Your task to perform on an android device: Clear the shopping cart on newegg. Add "dell xps" to the cart on newegg, then select checkout. Image 0: 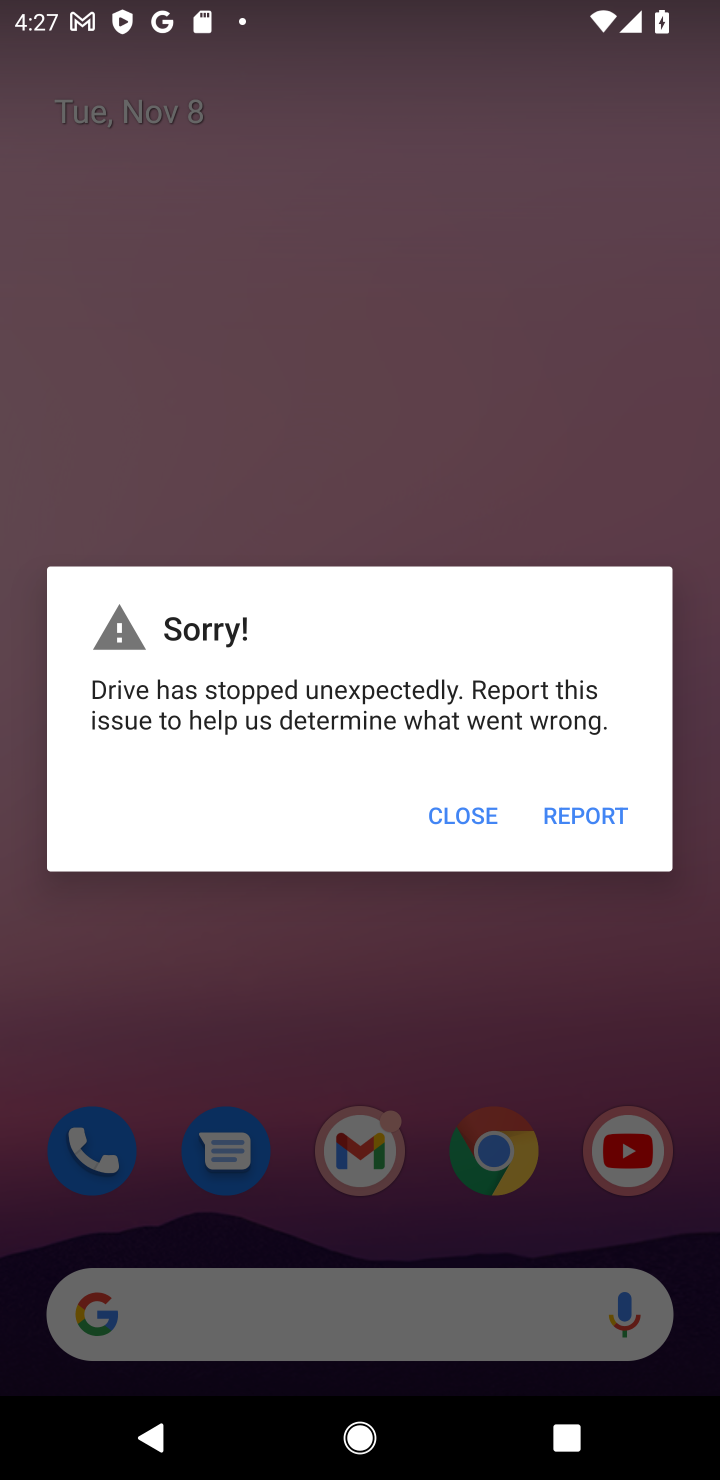
Step 0: press home button
Your task to perform on an android device: Clear the shopping cart on newegg. Add "dell xps" to the cart on newegg, then select checkout. Image 1: 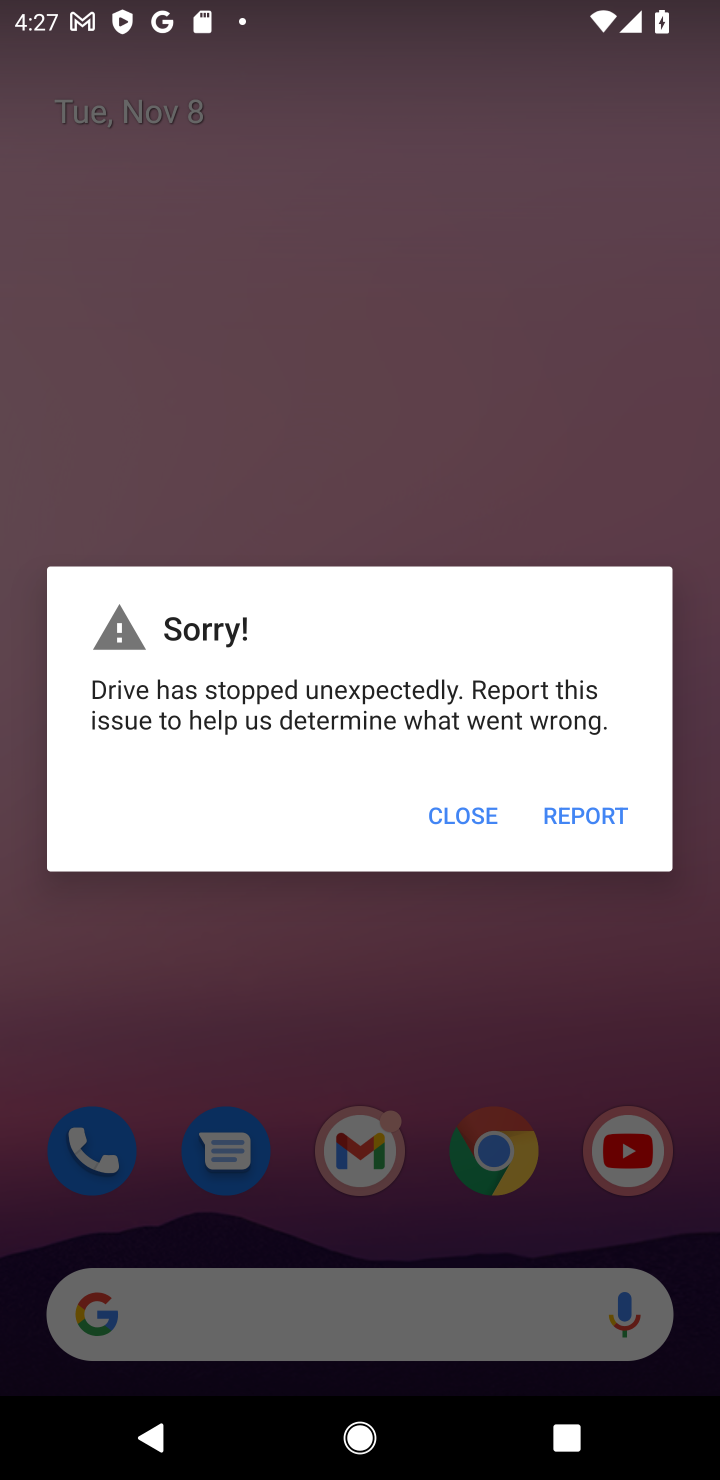
Step 1: press home button
Your task to perform on an android device: Clear the shopping cart on newegg. Add "dell xps" to the cart on newegg, then select checkout. Image 2: 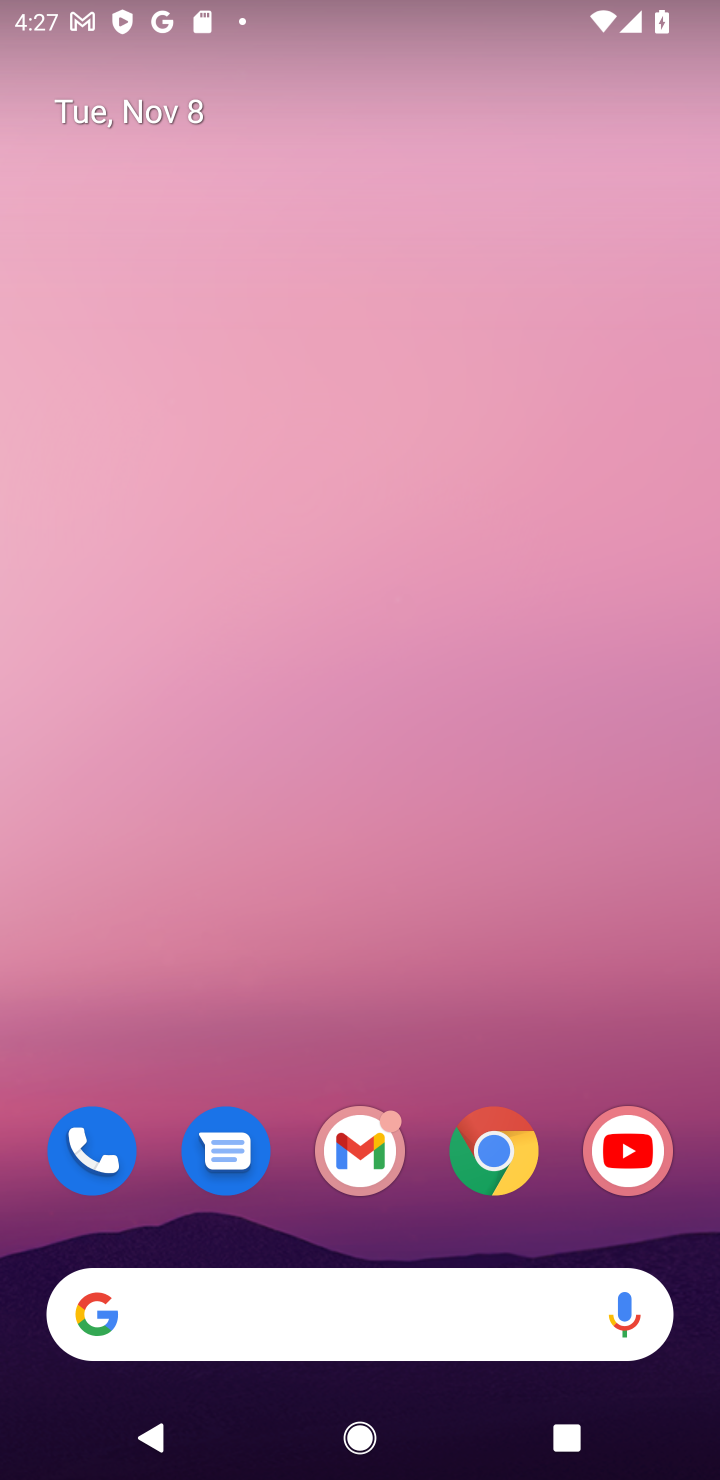
Step 2: drag from (461, 841) to (431, 160)
Your task to perform on an android device: Clear the shopping cart on newegg. Add "dell xps" to the cart on newegg, then select checkout. Image 3: 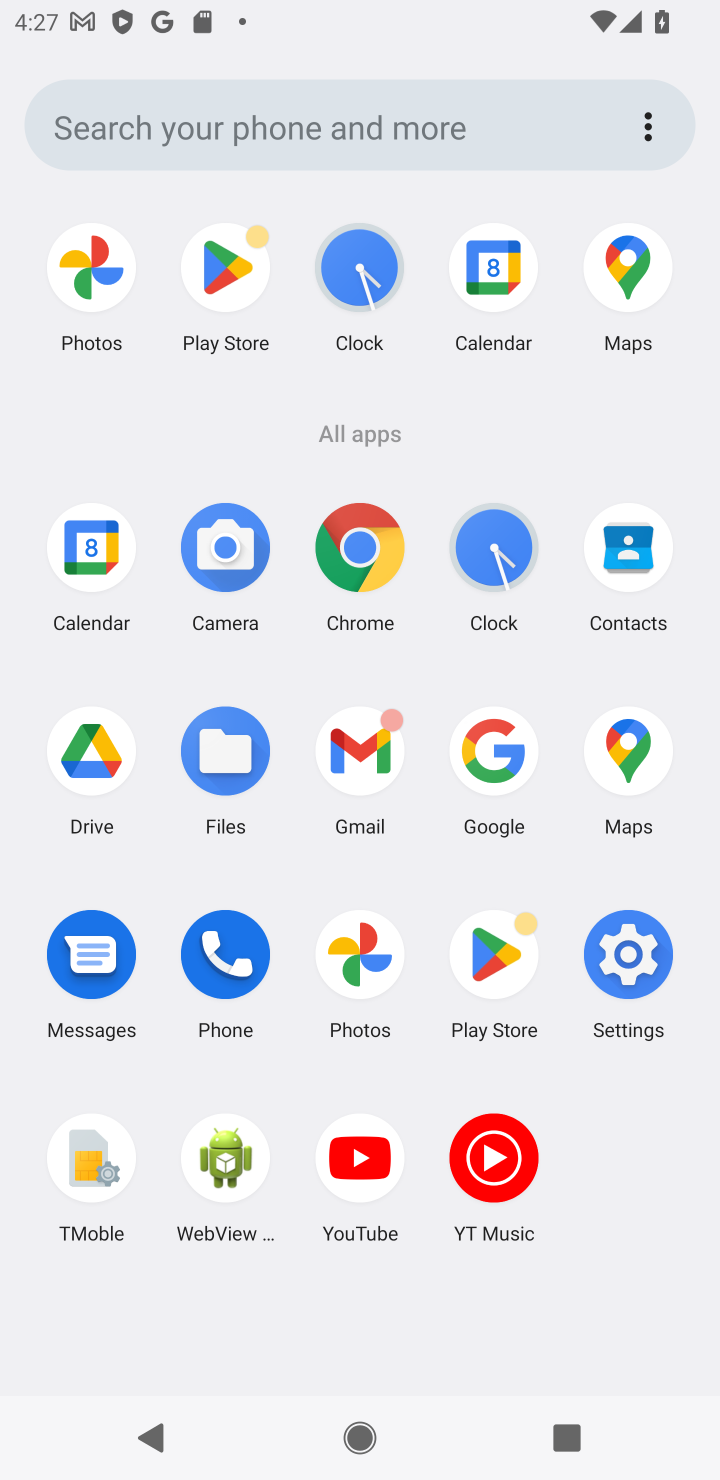
Step 3: click (367, 558)
Your task to perform on an android device: Clear the shopping cart on newegg. Add "dell xps" to the cart on newegg, then select checkout. Image 4: 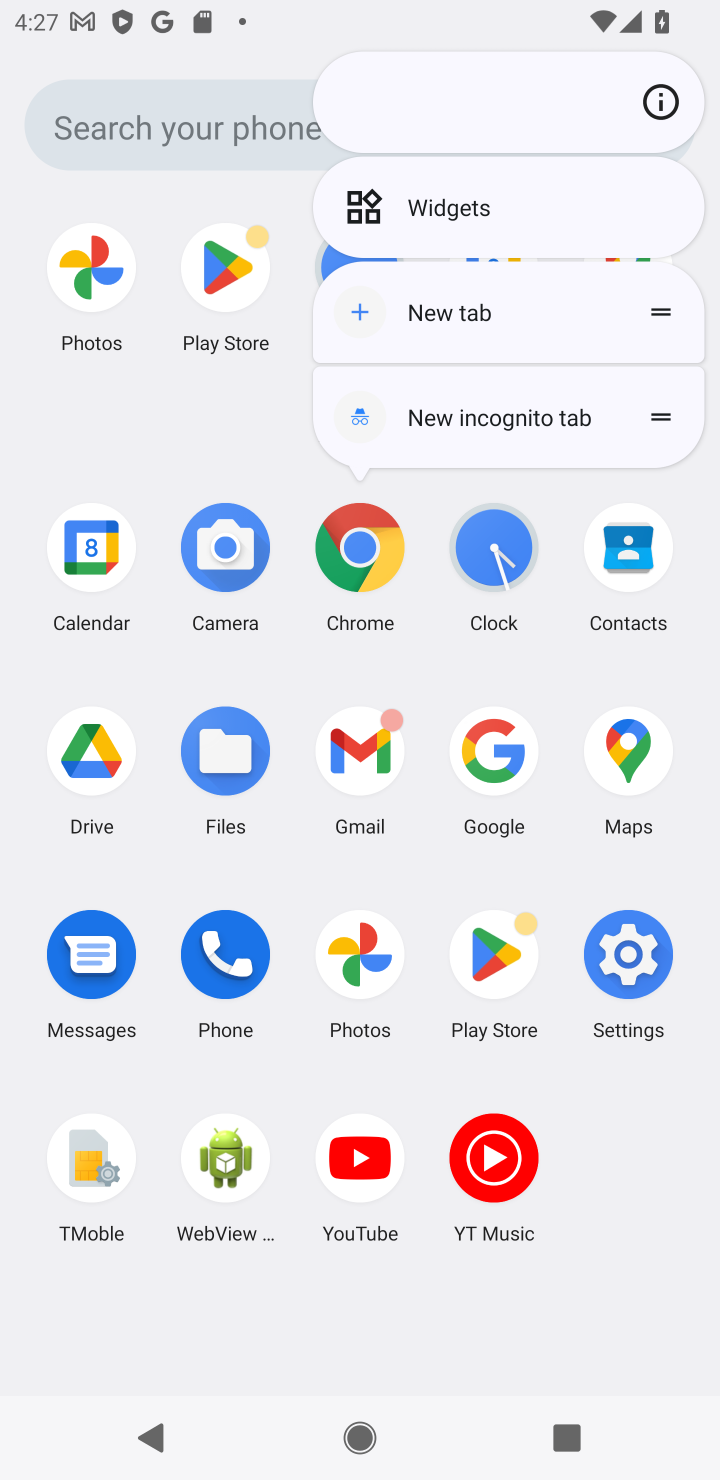
Step 4: click (348, 550)
Your task to perform on an android device: Clear the shopping cart on newegg. Add "dell xps" to the cart on newegg, then select checkout. Image 5: 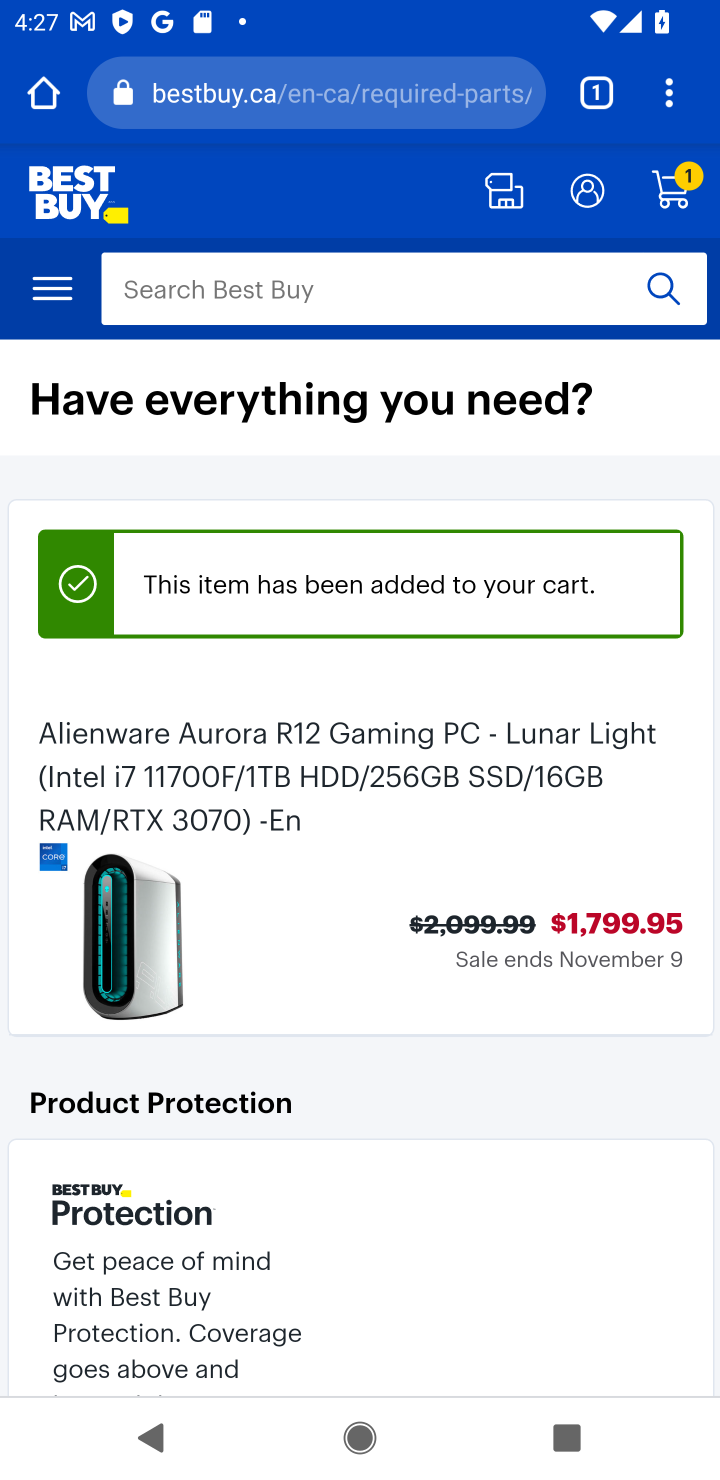
Step 5: click (361, 185)
Your task to perform on an android device: Clear the shopping cart on newegg. Add "dell xps" to the cart on newegg, then select checkout. Image 6: 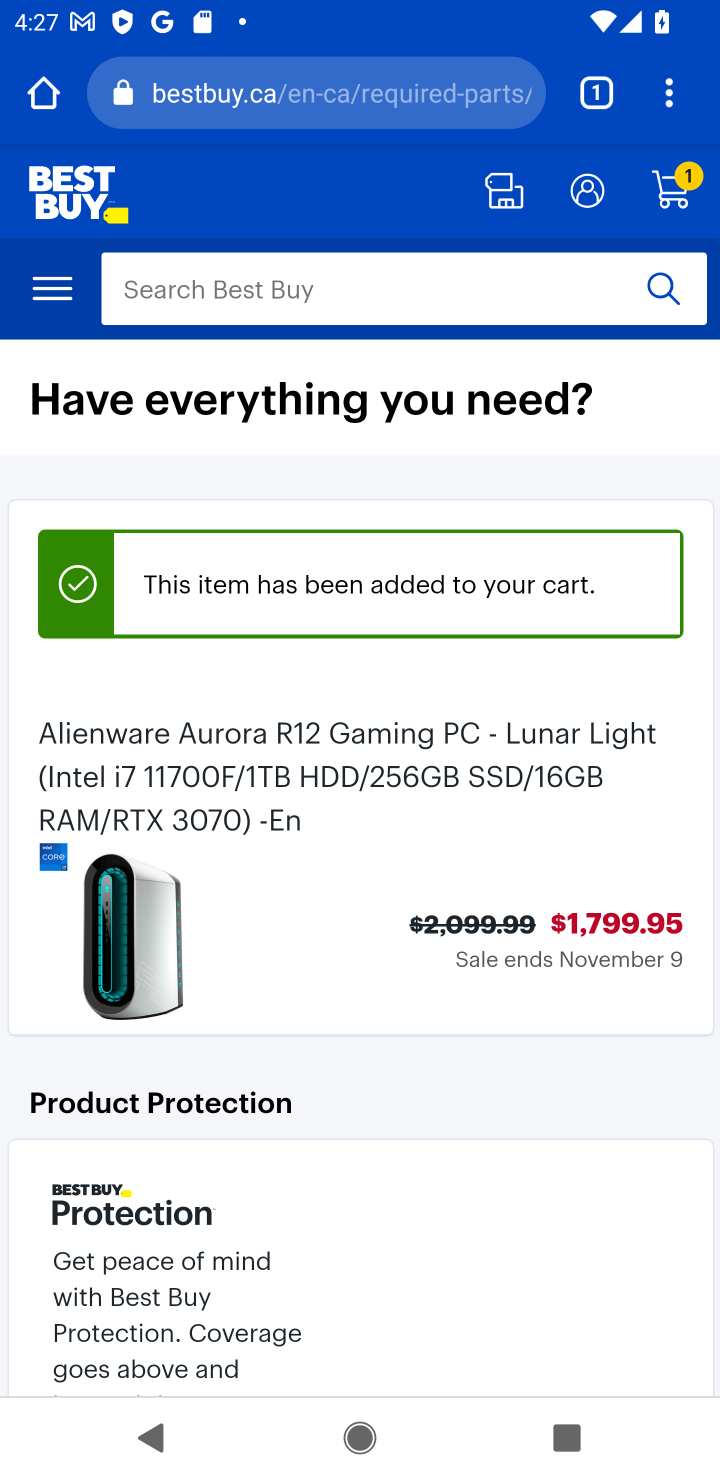
Step 6: click (379, 94)
Your task to perform on an android device: Clear the shopping cart on newegg. Add "dell xps" to the cart on newegg, then select checkout. Image 7: 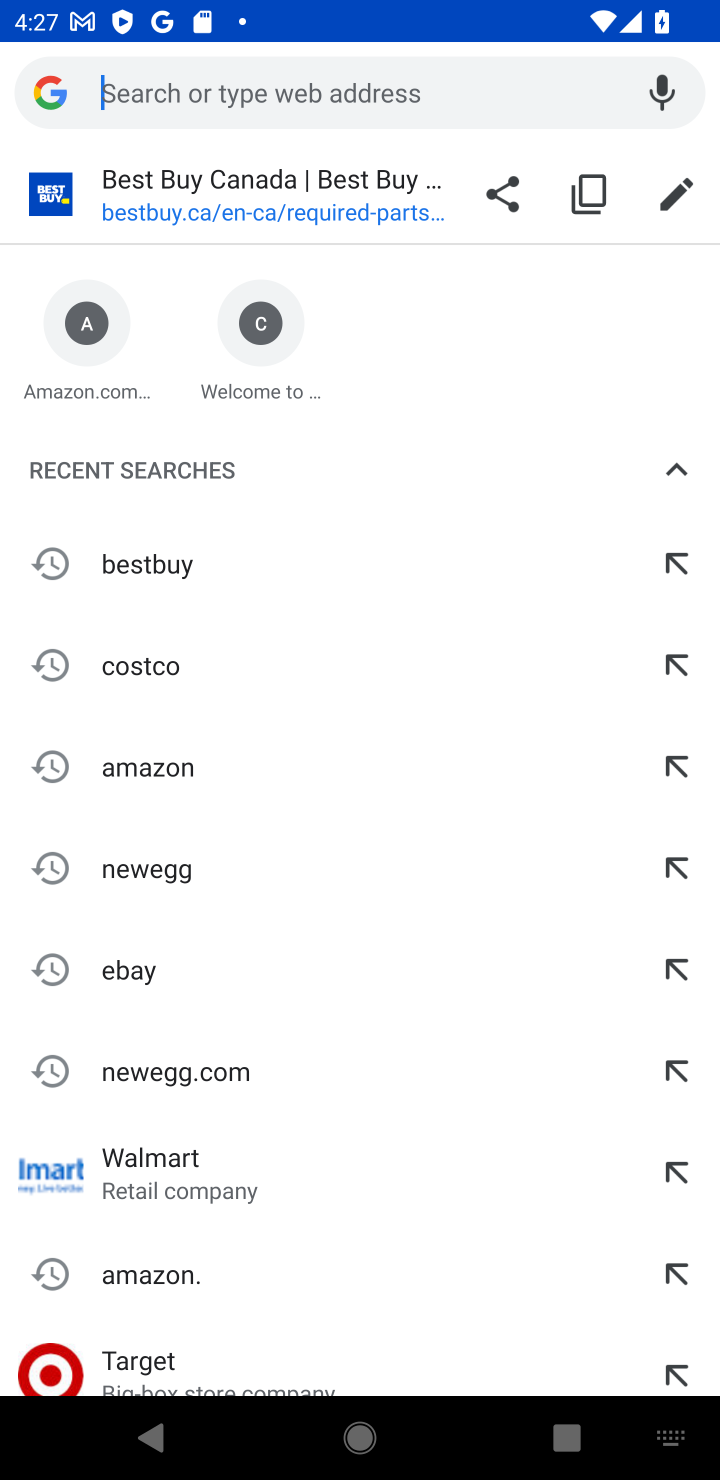
Step 7: type "newegg.com"
Your task to perform on an android device: Clear the shopping cart on newegg. Add "dell xps" to the cart on newegg, then select checkout. Image 8: 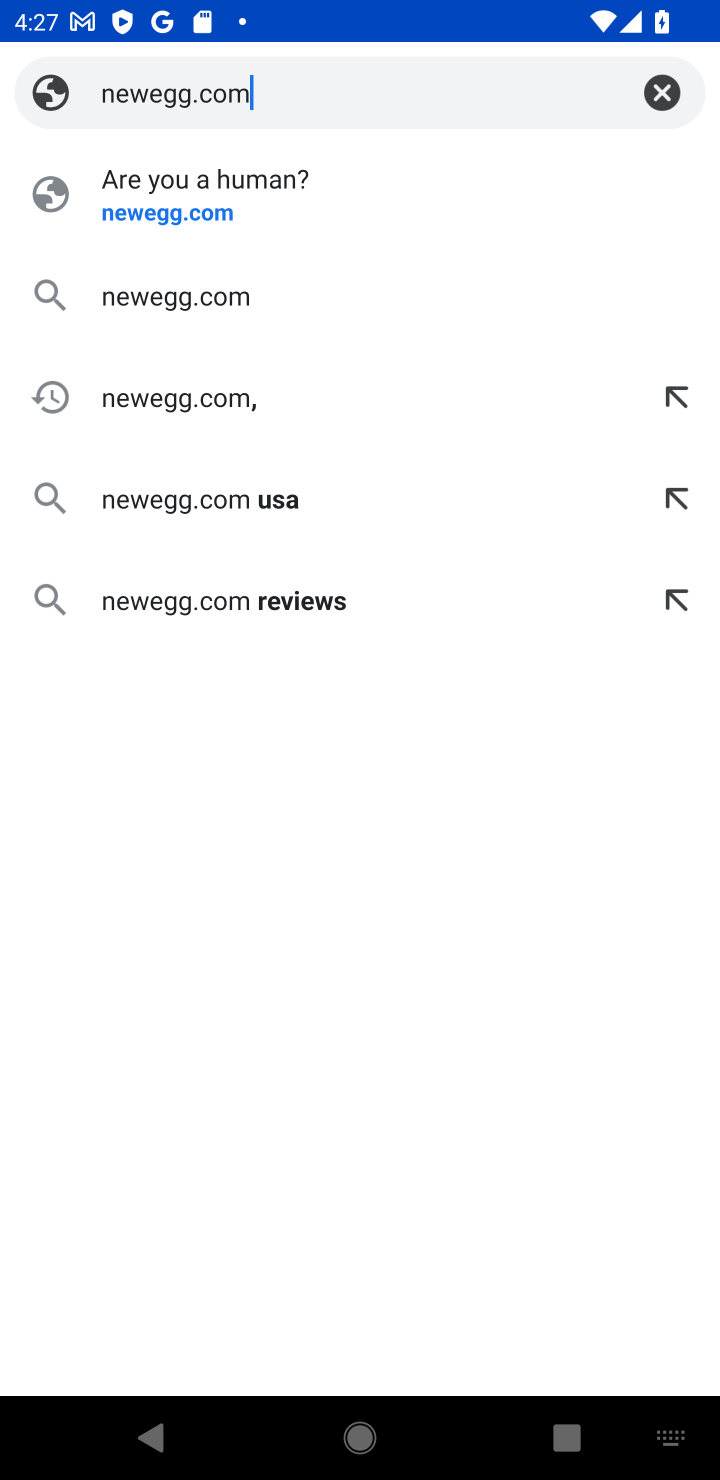
Step 8: press enter
Your task to perform on an android device: Clear the shopping cart on newegg. Add "dell xps" to the cart on newegg, then select checkout. Image 9: 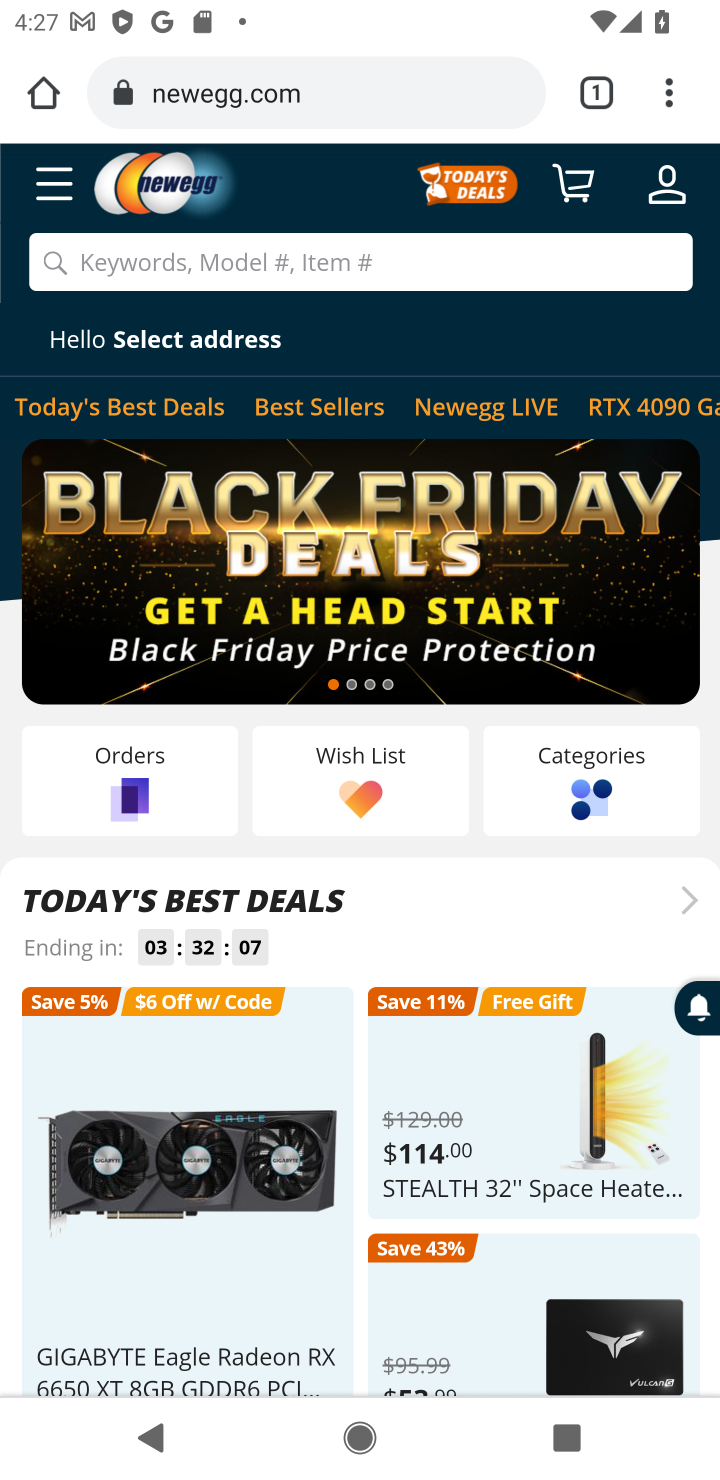
Step 9: drag from (493, 970) to (238, 150)
Your task to perform on an android device: Clear the shopping cart on newegg. Add "dell xps" to the cart on newegg, then select checkout. Image 10: 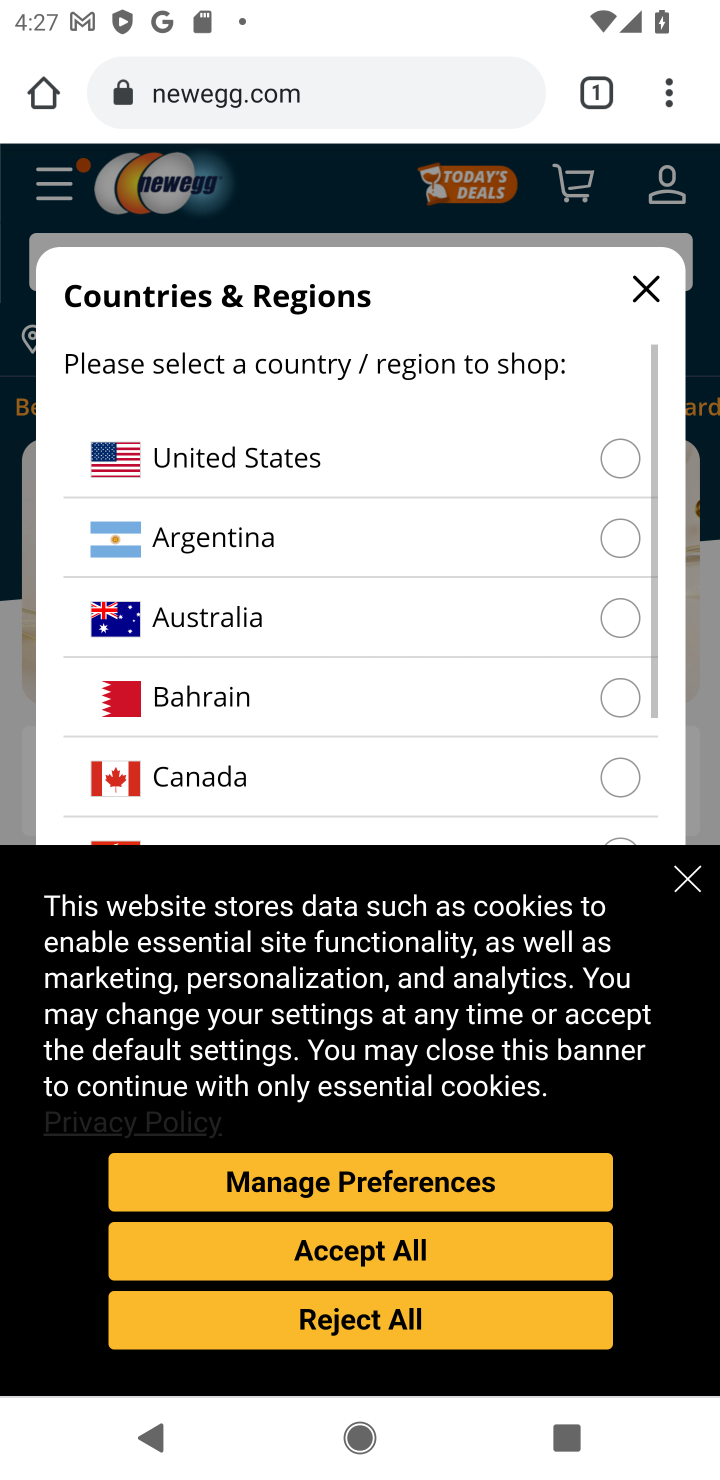
Step 10: click (466, 1245)
Your task to perform on an android device: Clear the shopping cart on newegg. Add "dell xps" to the cart on newegg, then select checkout. Image 11: 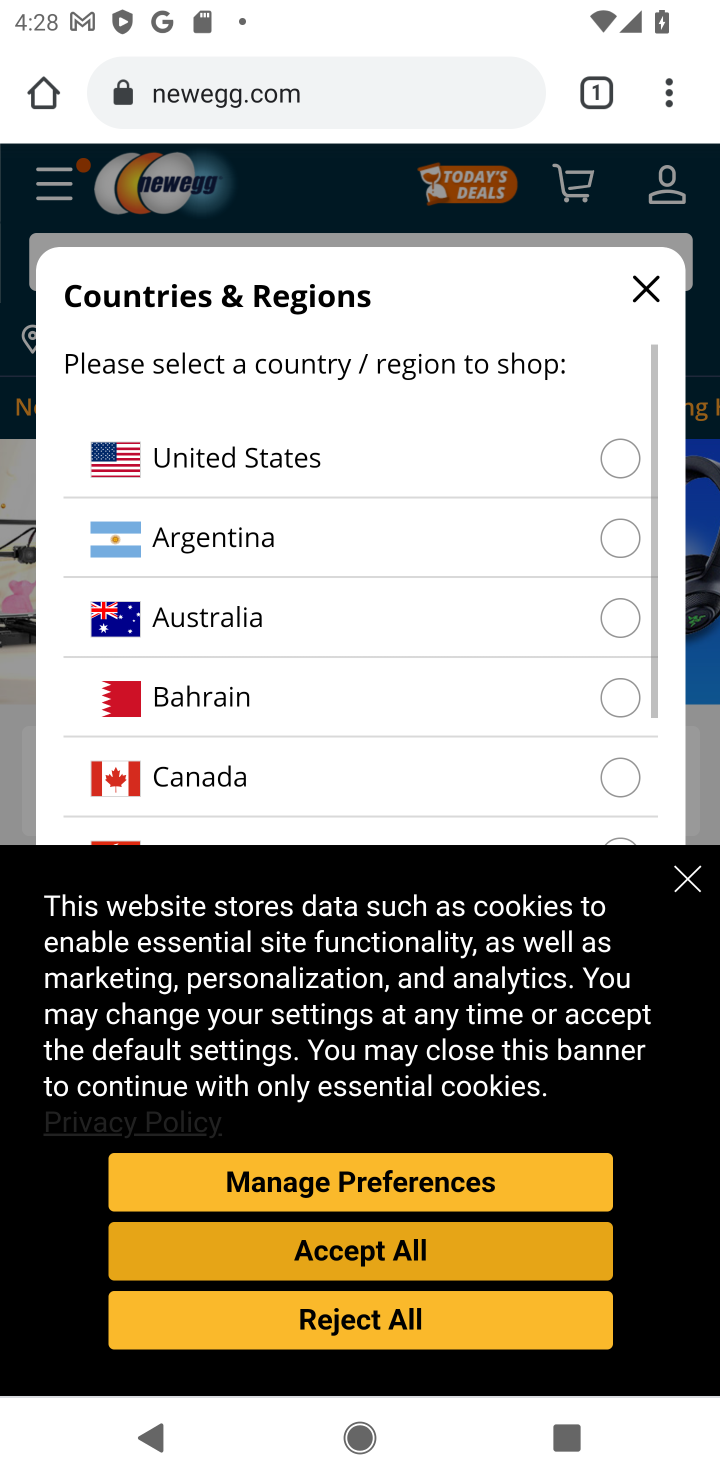
Step 11: click (394, 1234)
Your task to perform on an android device: Clear the shopping cart on newegg. Add "dell xps" to the cart on newegg, then select checkout. Image 12: 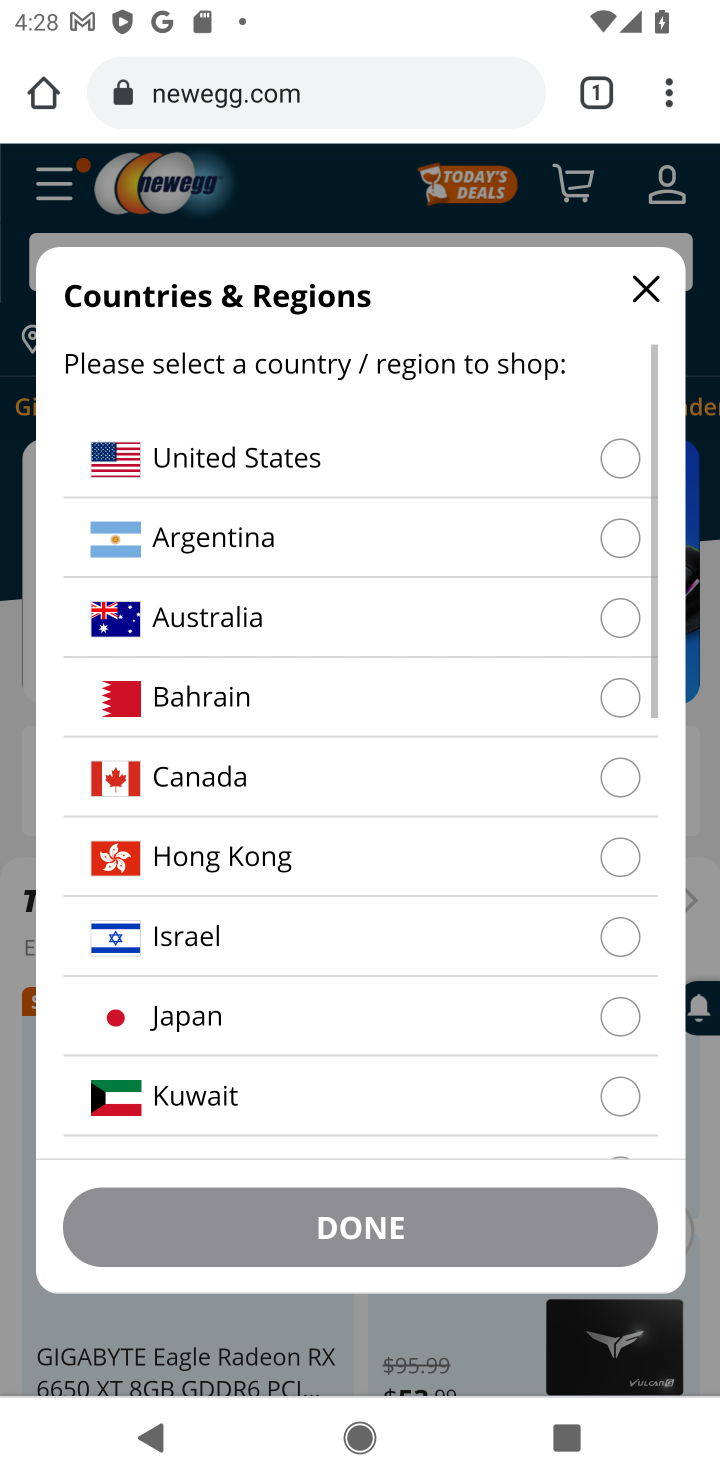
Step 12: click (624, 283)
Your task to perform on an android device: Clear the shopping cart on newegg. Add "dell xps" to the cart on newegg, then select checkout. Image 13: 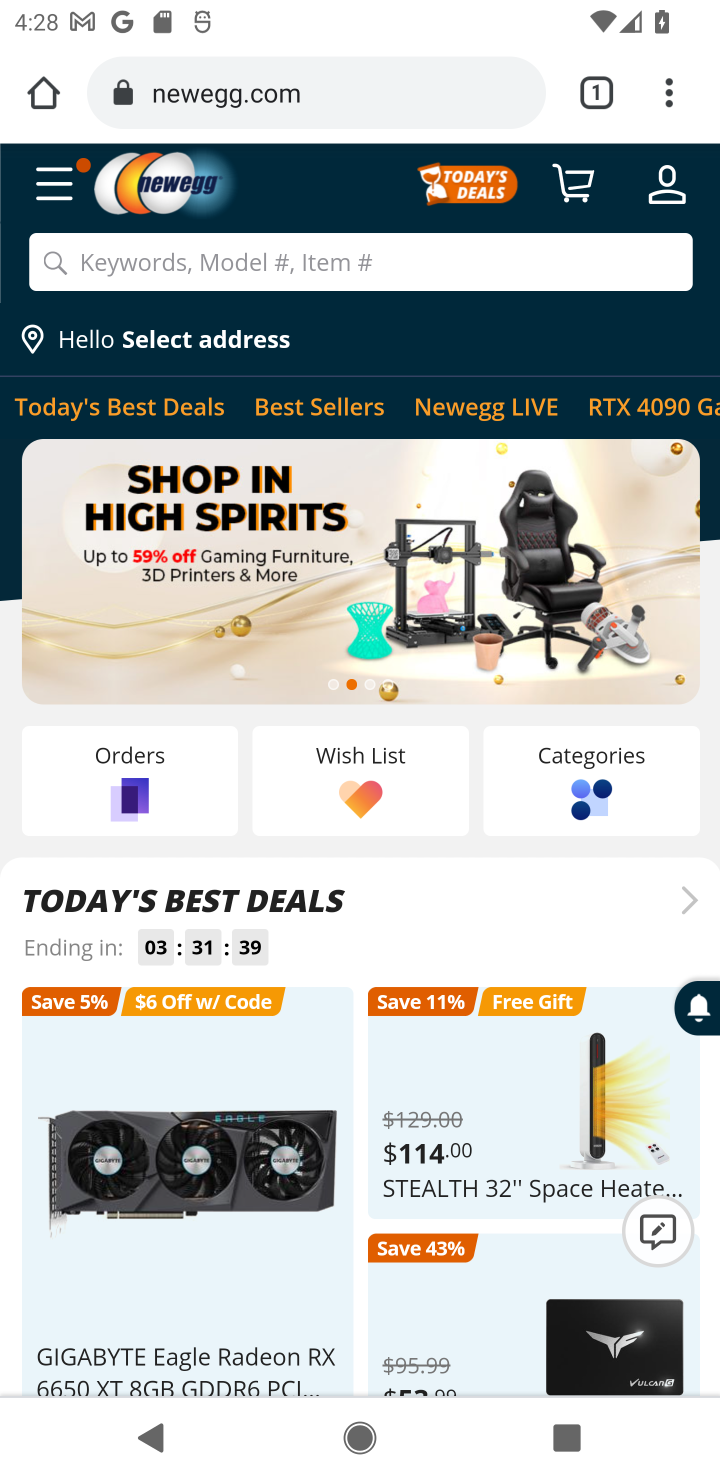
Step 13: click (553, 194)
Your task to perform on an android device: Clear the shopping cart on newegg. Add "dell xps" to the cart on newegg, then select checkout. Image 14: 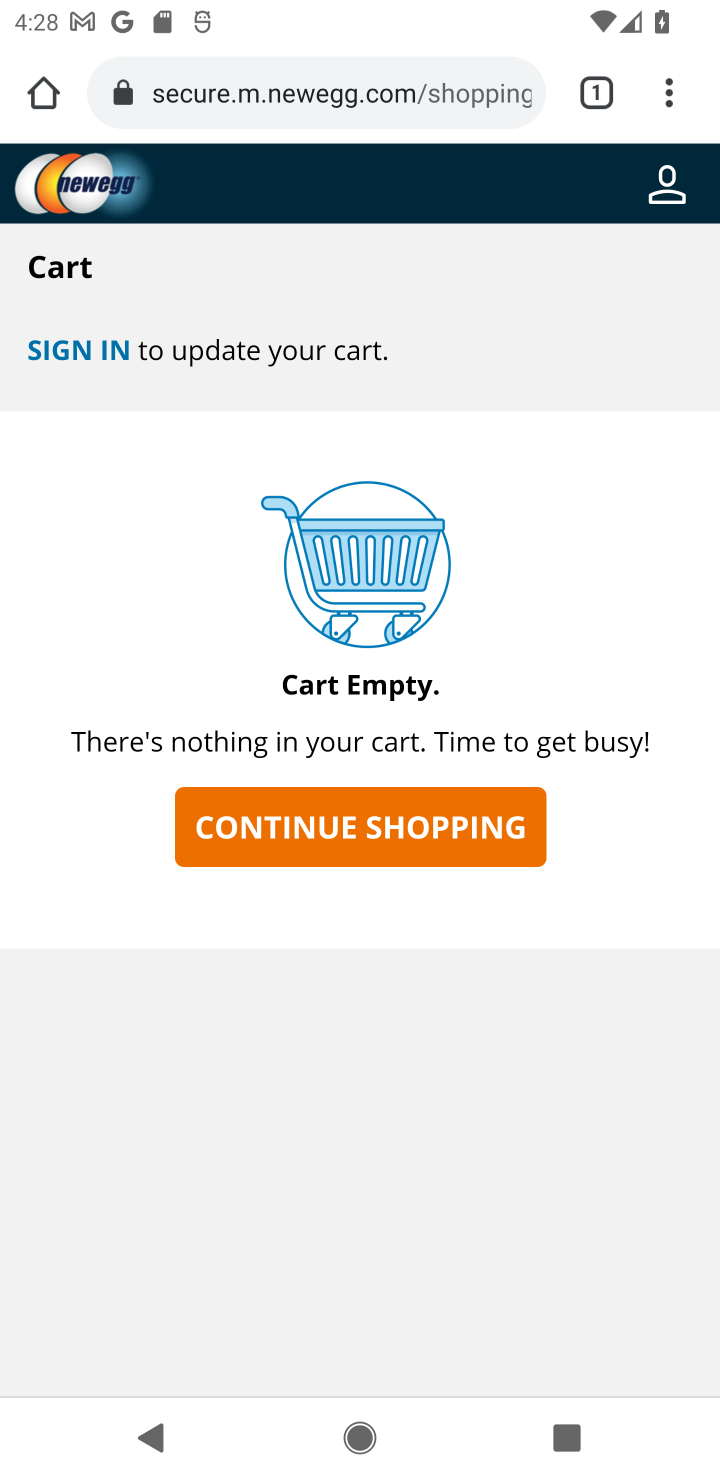
Step 14: click (443, 832)
Your task to perform on an android device: Clear the shopping cart on newegg. Add "dell xps" to the cart on newegg, then select checkout. Image 15: 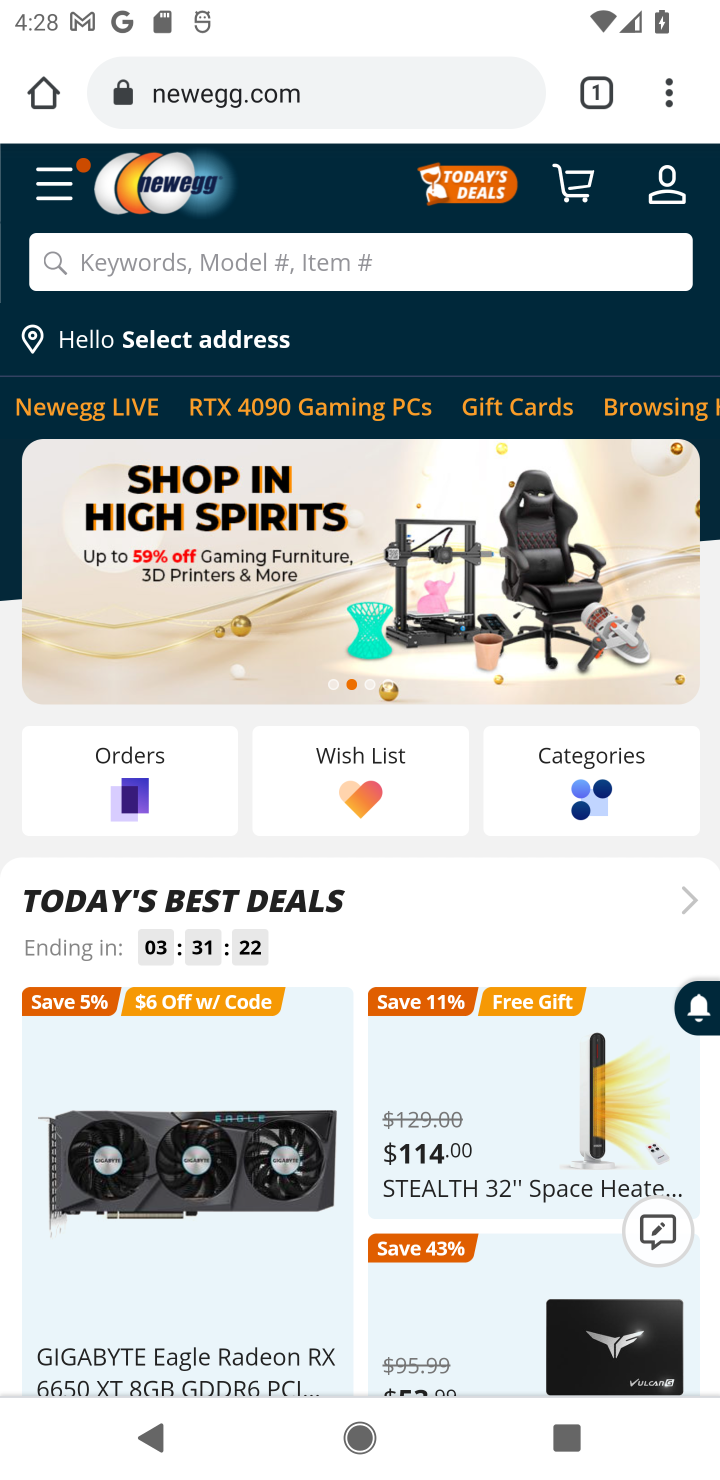
Step 15: click (354, 254)
Your task to perform on an android device: Clear the shopping cart on newegg. Add "dell xps" to the cart on newegg, then select checkout. Image 16: 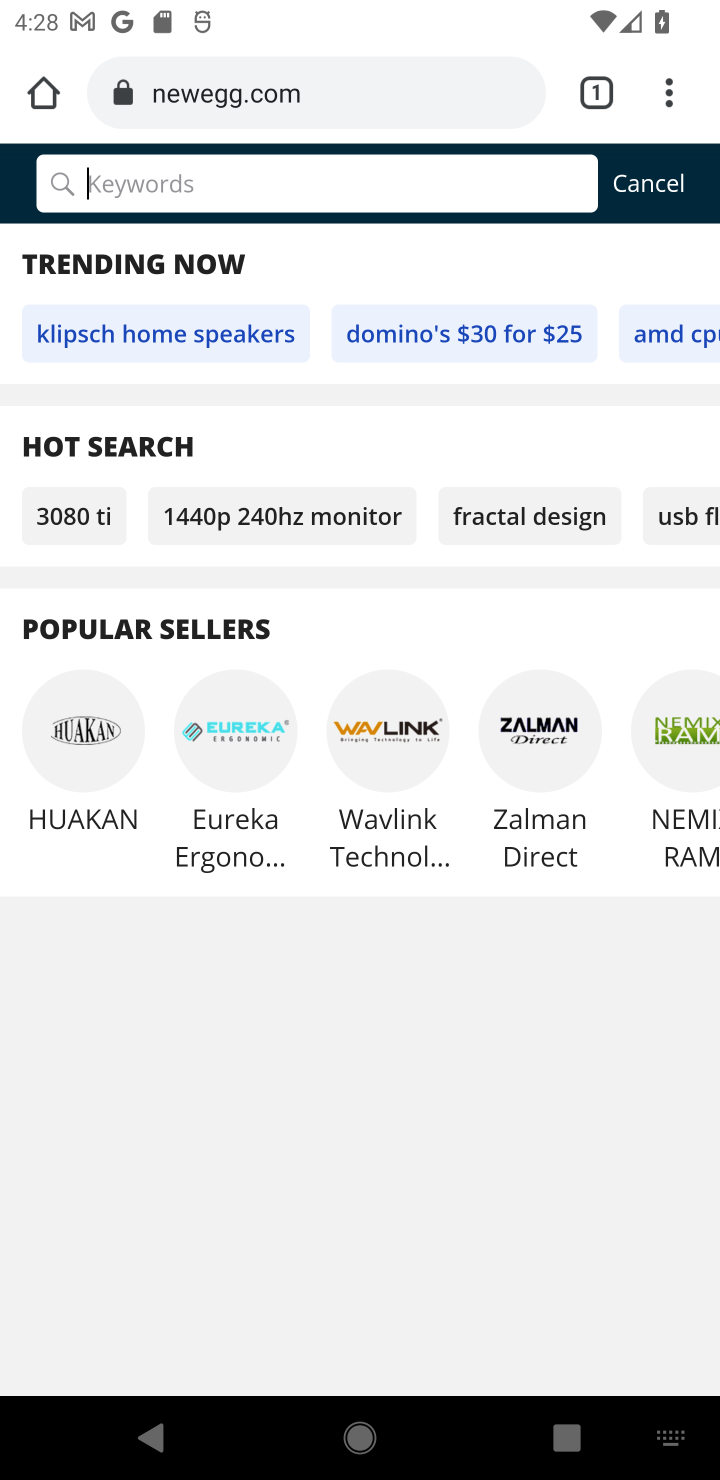
Step 16: type "dell xps"
Your task to perform on an android device: Clear the shopping cart on newegg. Add "dell xps" to the cart on newegg, then select checkout. Image 17: 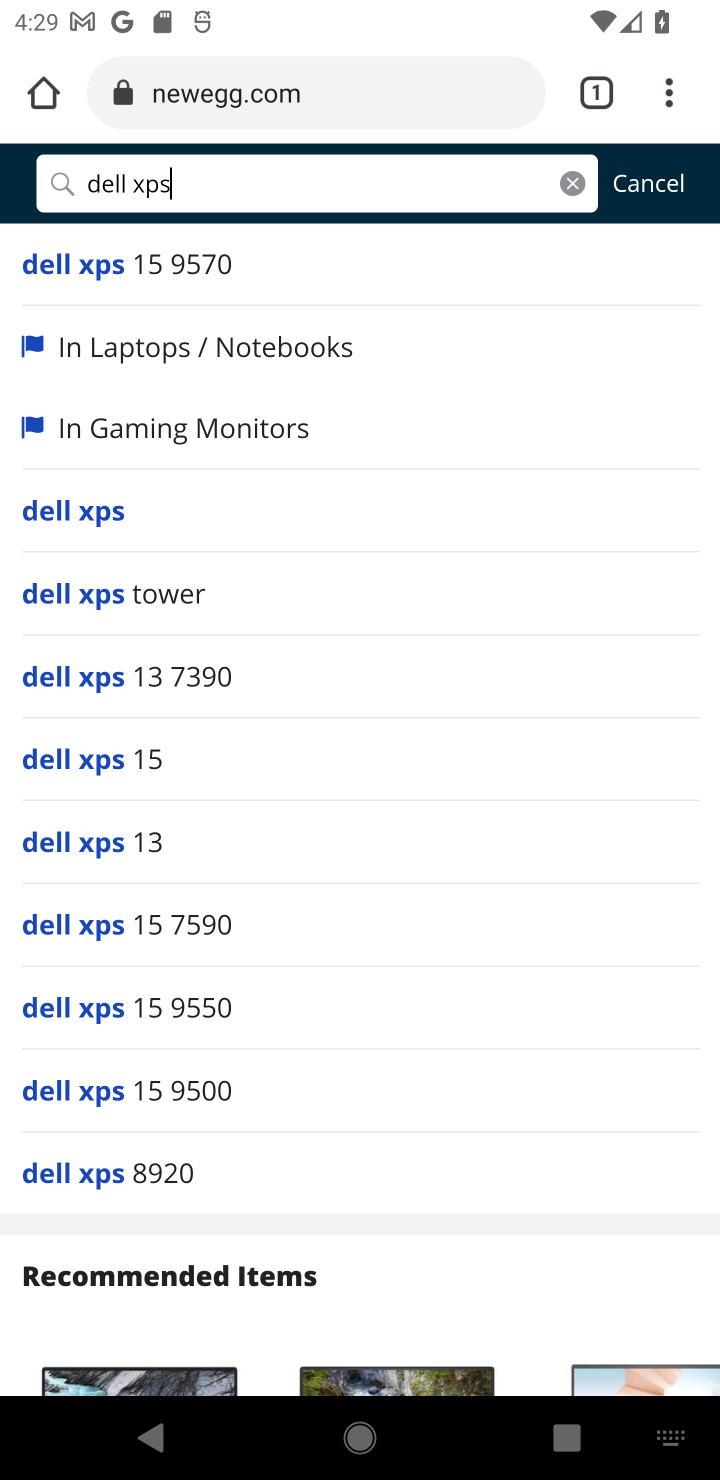
Step 17: press enter
Your task to perform on an android device: Clear the shopping cart on newegg. Add "dell xps" to the cart on newegg, then select checkout. Image 18: 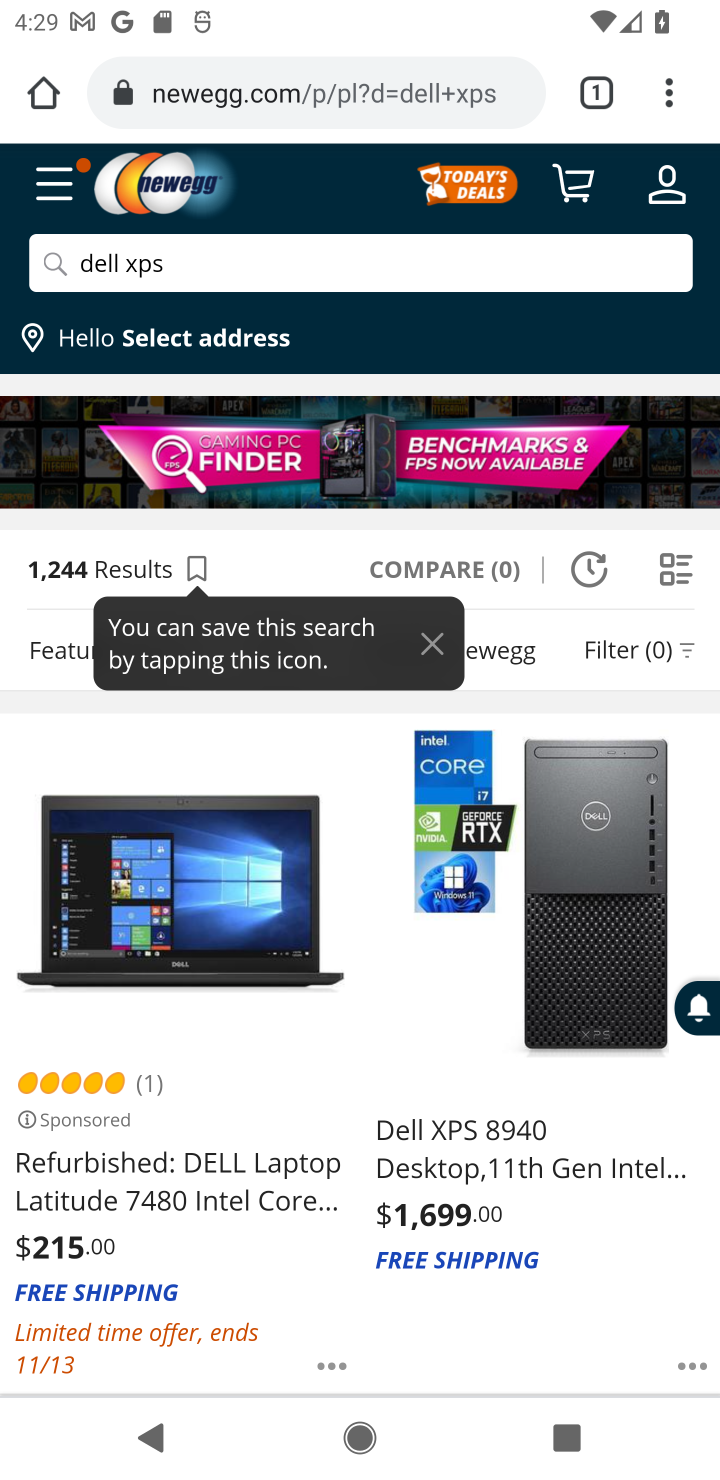
Step 18: click (465, 1160)
Your task to perform on an android device: Clear the shopping cart on newegg. Add "dell xps" to the cart on newegg, then select checkout. Image 19: 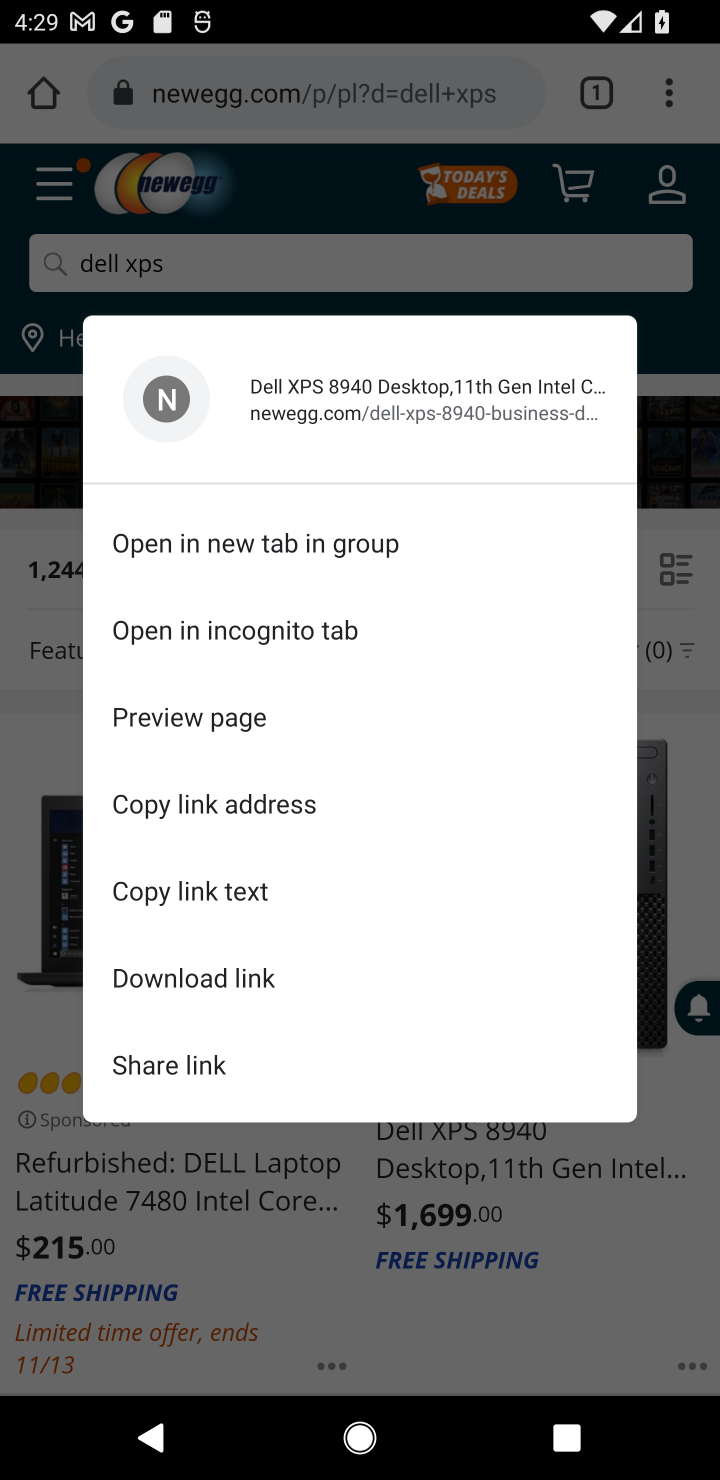
Step 19: click (532, 1159)
Your task to perform on an android device: Clear the shopping cart on newegg. Add "dell xps" to the cart on newegg, then select checkout. Image 20: 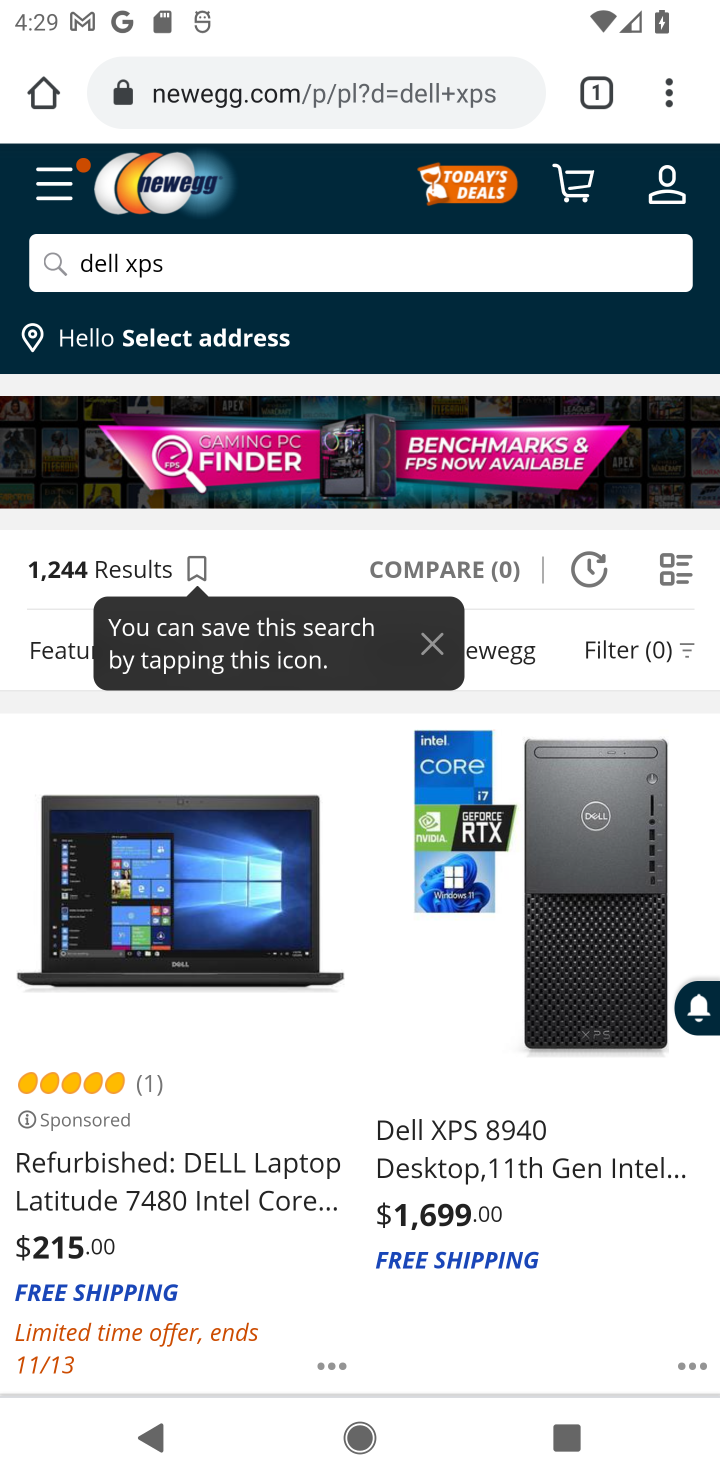
Step 20: click (488, 1174)
Your task to perform on an android device: Clear the shopping cart on newegg. Add "dell xps" to the cart on newegg, then select checkout. Image 21: 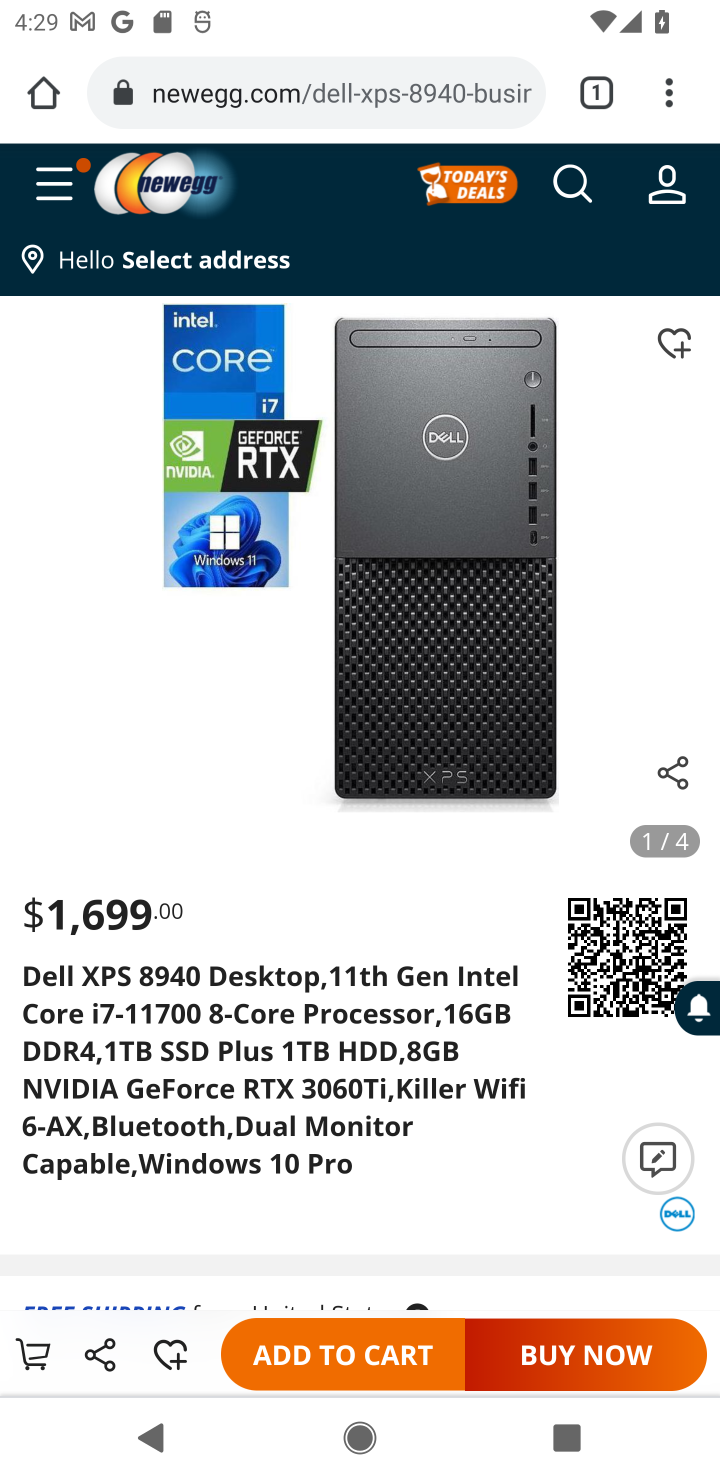
Step 21: drag from (467, 1015) to (491, 435)
Your task to perform on an android device: Clear the shopping cart on newegg. Add "dell xps" to the cart on newegg, then select checkout. Image 22: 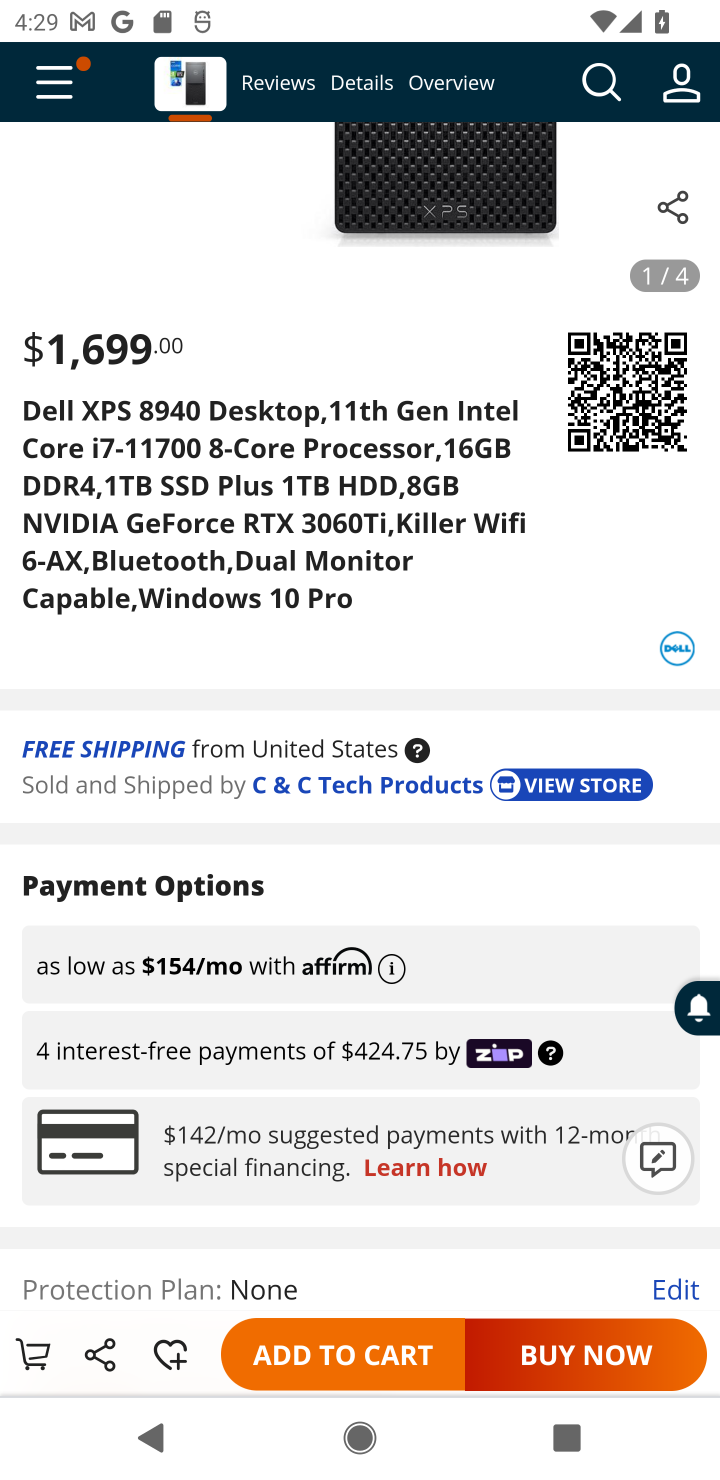
Step 22: click (387, 1368)
Your task to perform on an android device: Clear the shopping cart on newegg. Add "dell xps" to the cart on newegg, then select checkout. Image 23: 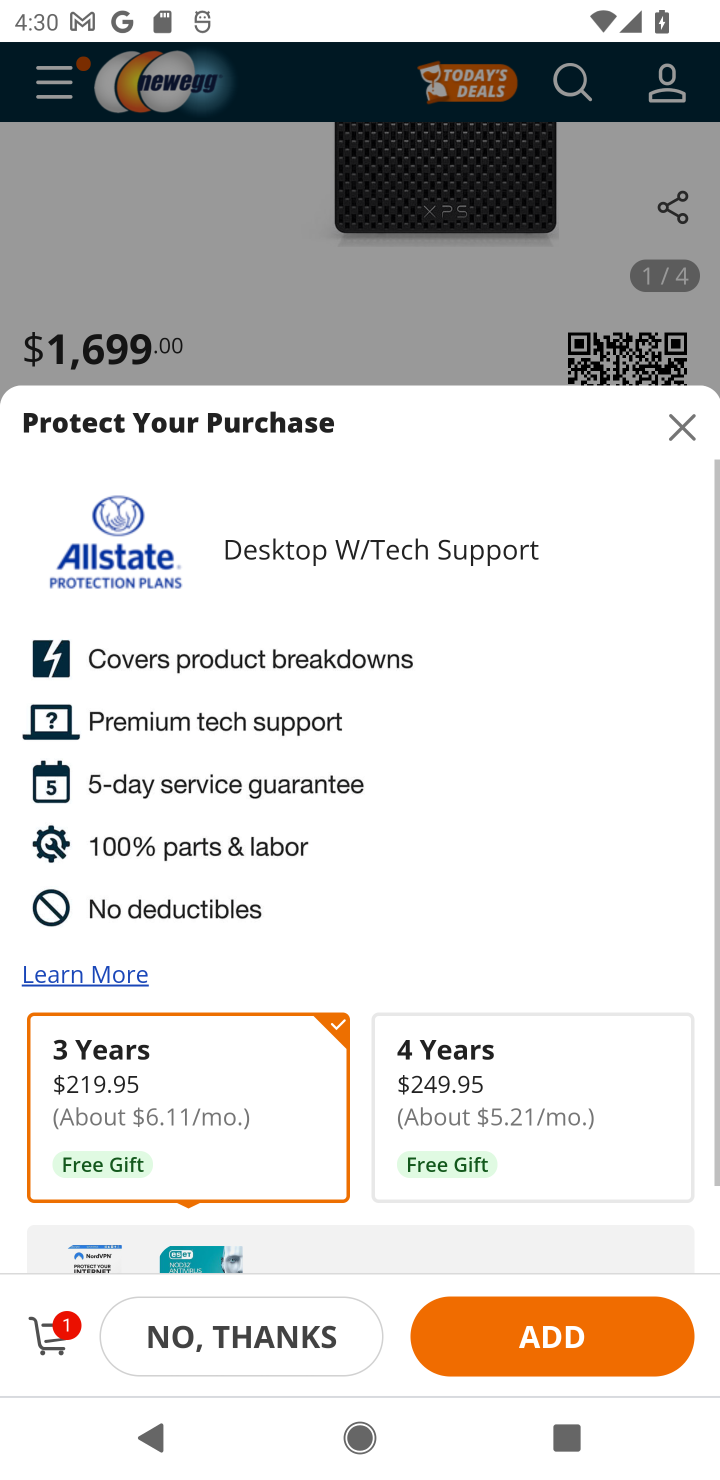
Step 23: click (37, 1354)
Your task to perform on an android device: Clear the shopping cart on newegg. Add "dell xps" to the cart on newegg, then select checkout. Image 24: 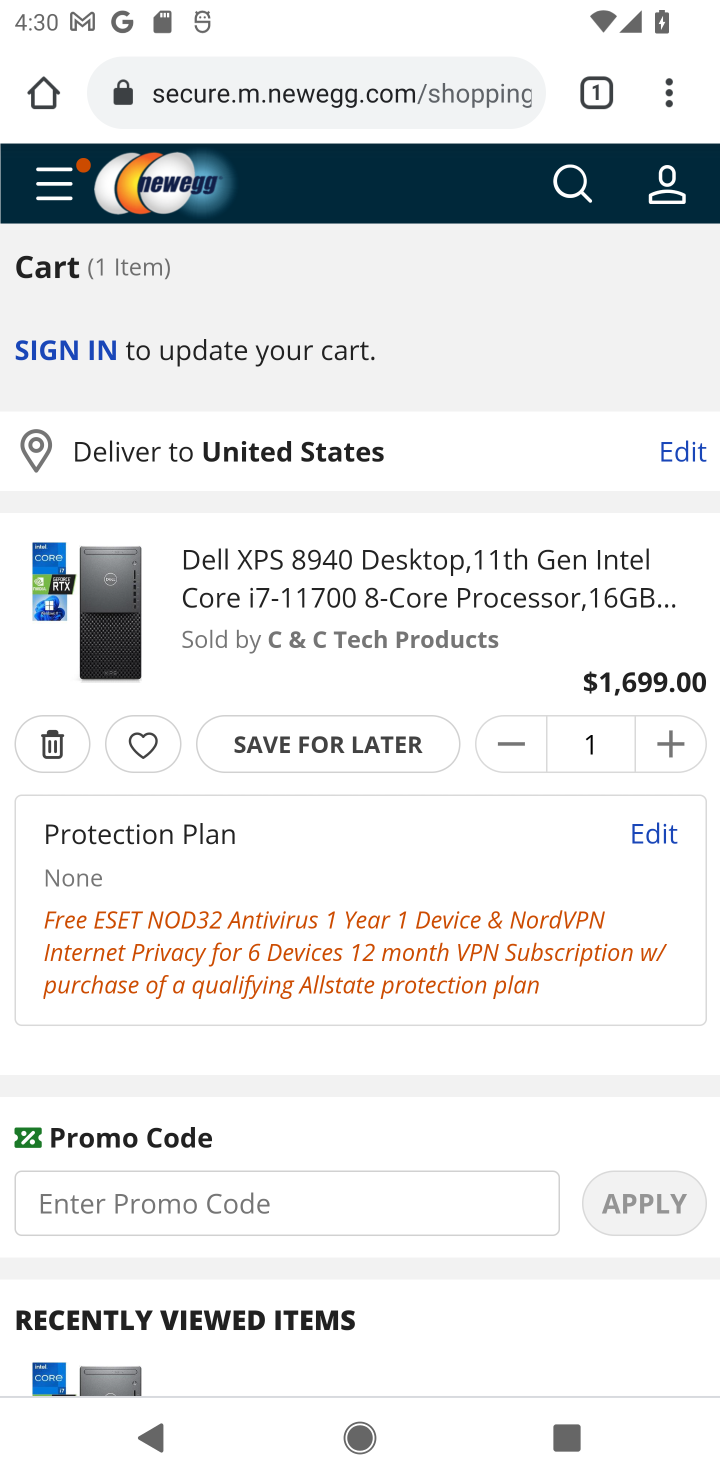
Step 24: click (444, 1270)
Your task to perform on an android device: Clear the shopping cart on newegg. Add "dell xps" to the cart on newegg, then select checkout. Image 25: 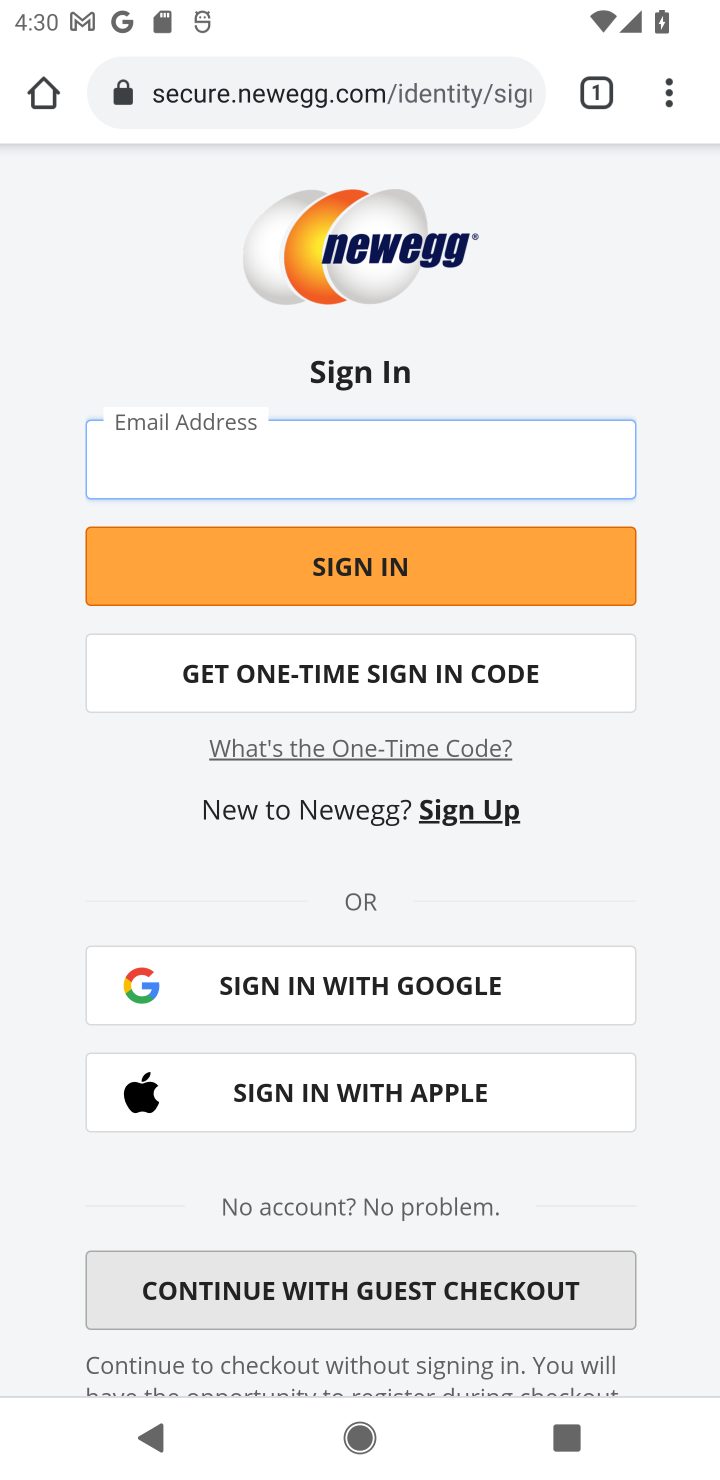
Step 25: task complete